Your task to perform on an android device: turn off airplane mode Image 0: 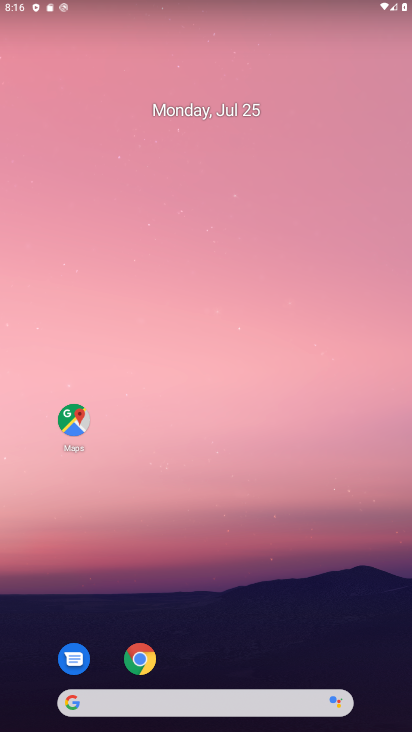
Step 0: drag from (345, 611) to (272, 141)
Your task to perform on an android device: turn off airplane mode Image 1: 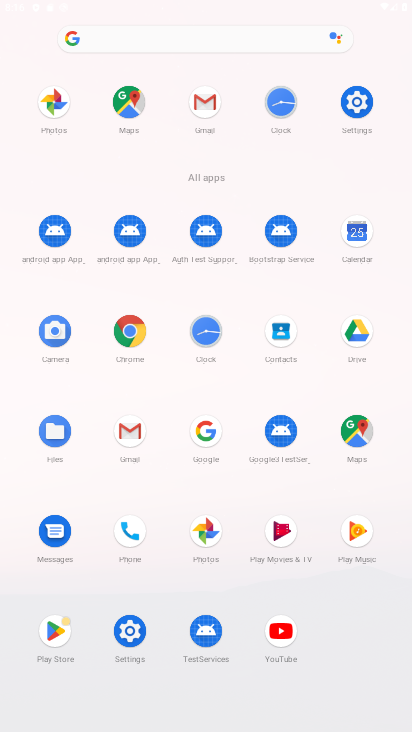
Step 1: drag from (122, 691) to (176, 230)
Your task to perform on an android device: turn off airplane mode Image 2: 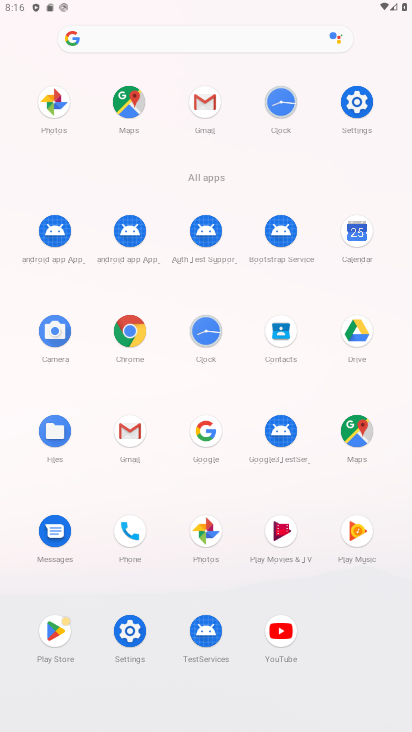
Step 2: click (356, 109)
Your task to perform on an android device: turn off airplane mode Image 3: 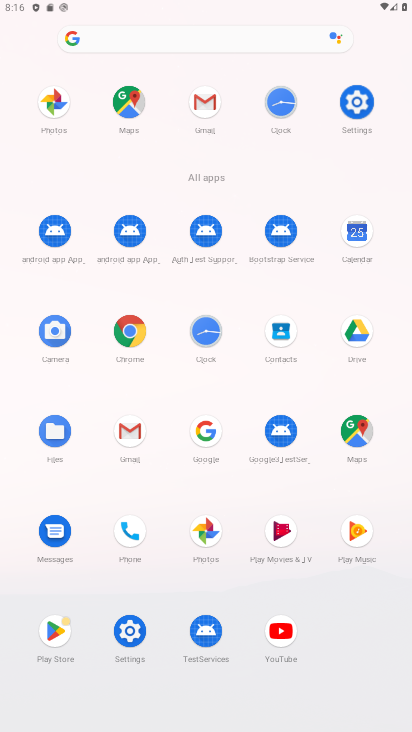
Step 3: click (355, 107)
Your task to perform on an android device: turn off airplane mode Image 4: 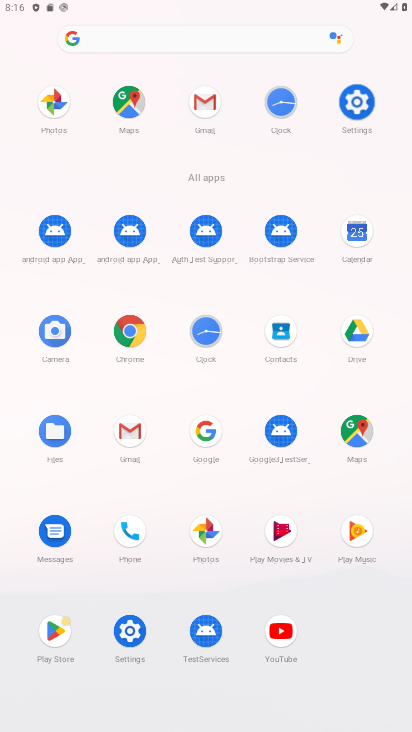
Step 4: click (355, 107)
Your task to perform on an android device: turn off airplane mode Image 5: 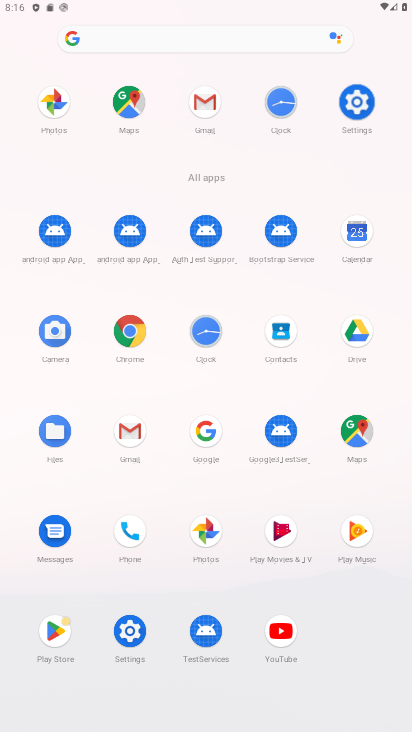
Step 5: click (356, 106)
Your task to perform on an android device: turn off airplane mode Image 6: 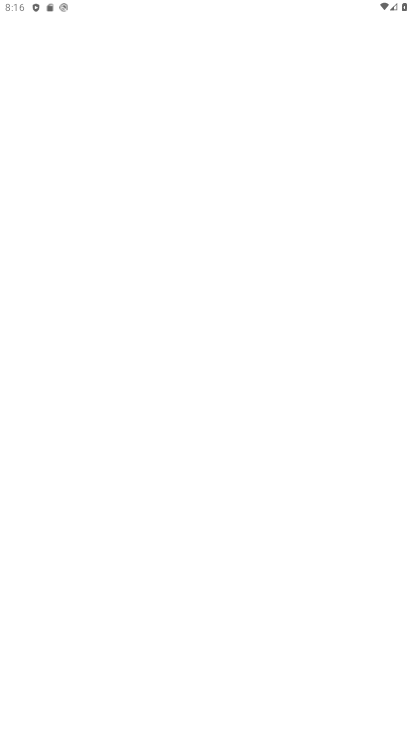
Step 6: click (358, 104)
Your task to perform on an android device: turn off airplane mode Image 7: 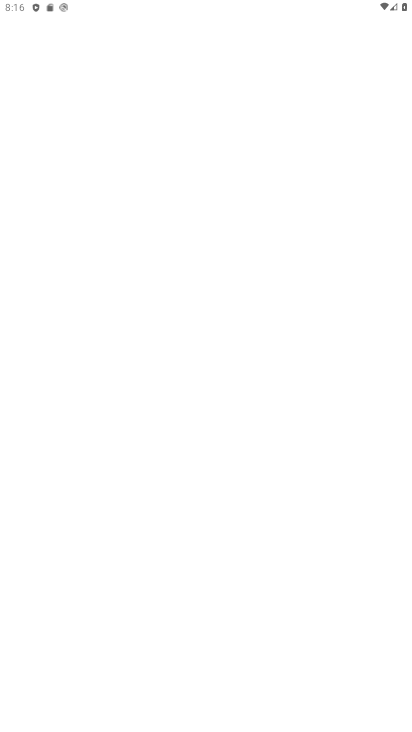
Step 7: click (358, 104)
Your task to perform on an android device: turn off airplane mode Image 8: 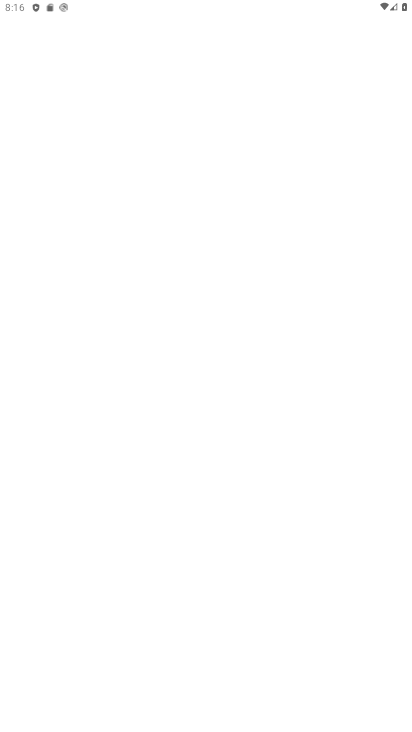
Step 8: click (358, 104)
Your task to perform on an android device: turn off airplane mode Image 9: 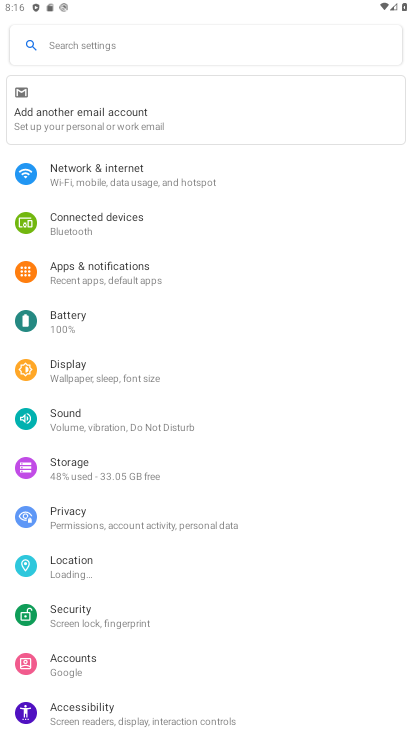
Step 9: click (91, 269)
Your task to perform on an android device: turn off airplane mode Image 10: 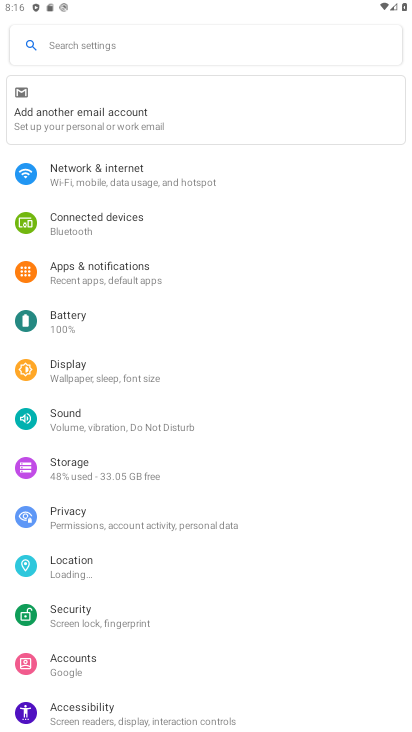
Step 10: click (87, 184)
Your task to perform on an android device: turn off airplane mode Image 11: 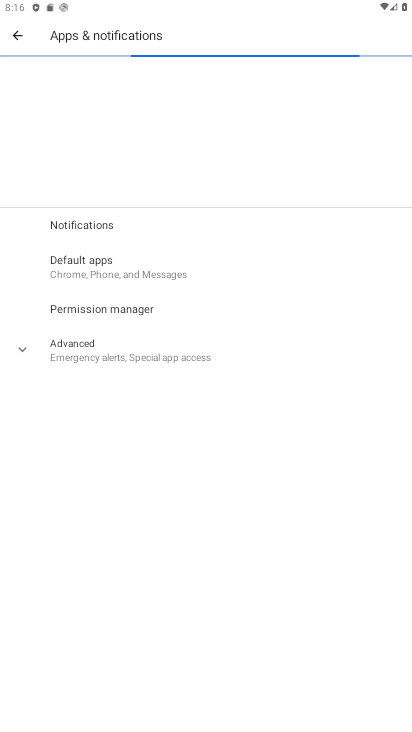
Step 11: click (104, 169)
Your task to perform on an android device: turn off airplane mode Image 12: 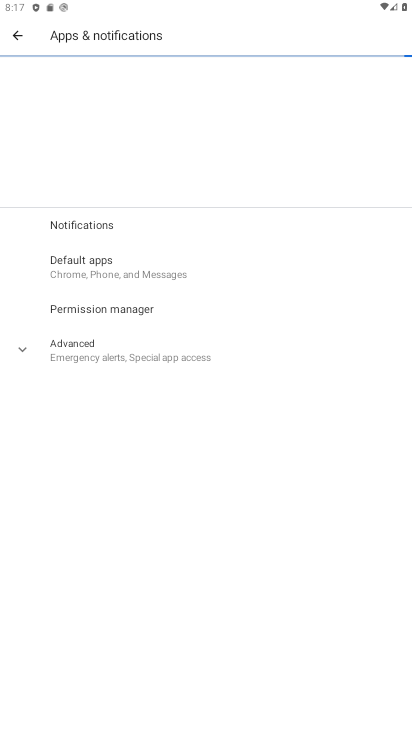
Step 12: click (27, 41)
Your task to perform on an android device: turn off airplane mode Image 13: 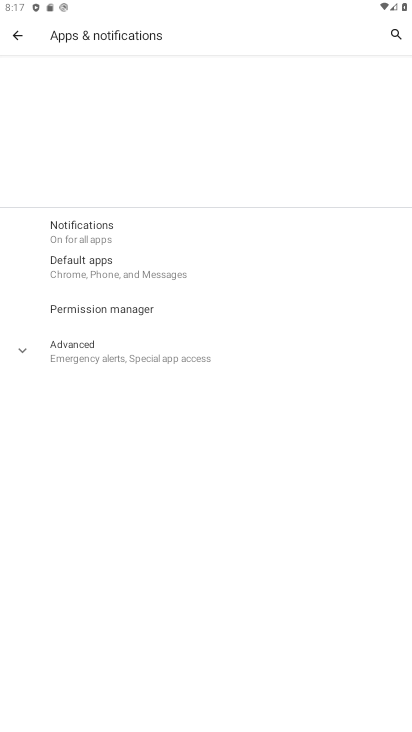
Step 13: click (21, 37)
Your task to perform on an android device: turn off airplane mode Image 14: 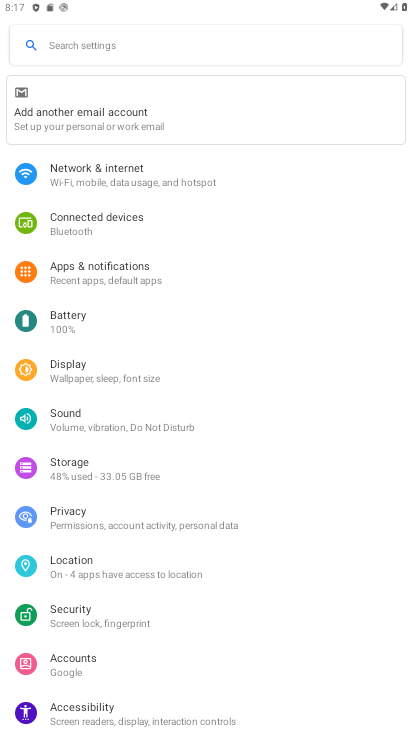
Step 14: click (81, 158)
Your task to perform on an android device: turn off airplane mode Image 15: 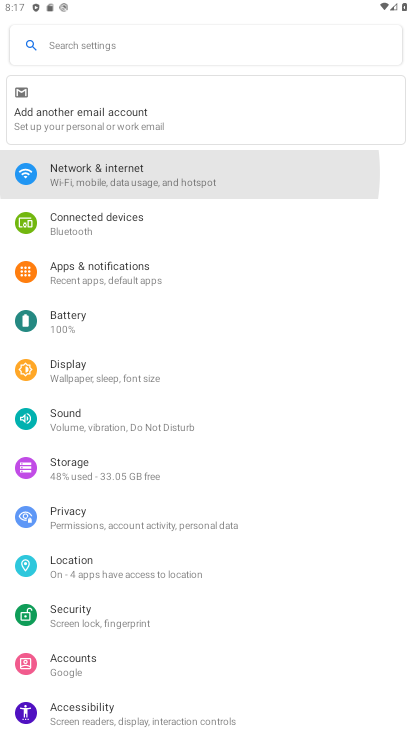
Step 15: click (82, 159)
Your task to perform on an android device: turn off airplane mode Image 16: 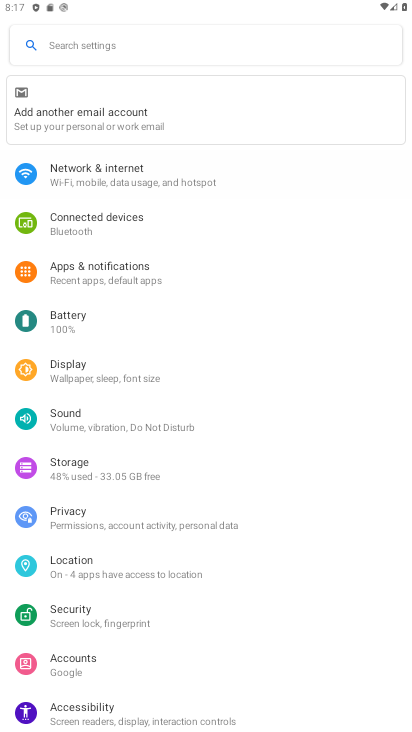
Step 16: click (93, 166)
Your task to perform on an android device: turn off airplane mode Image 17: 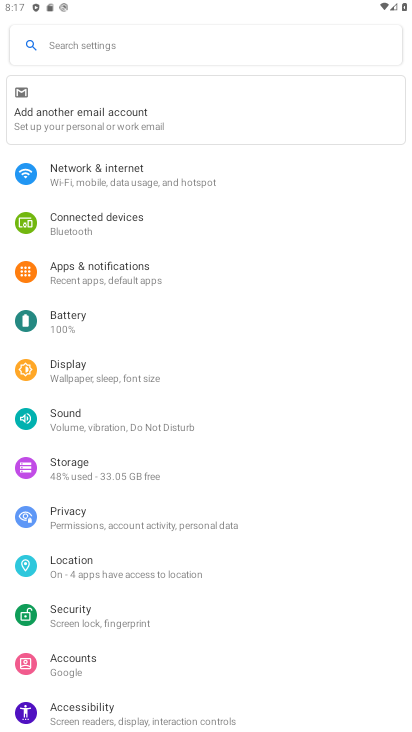
Step 17: click (93, 166)
Your task to perform on an android device: turn off airplane mode Image 18: 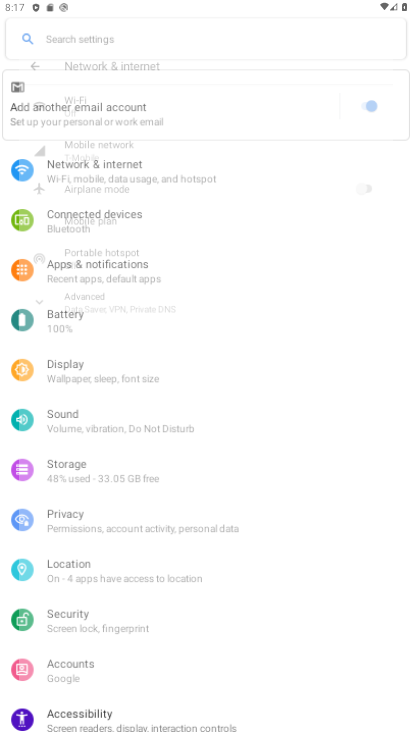
Step 18: click (90, 164)
Your task to perform on an android device: turn off airplane mode Image 19: 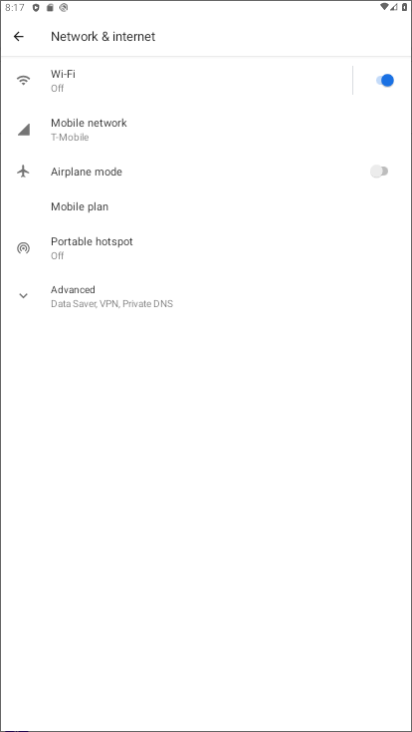
Step 19: click (92, 163)
Your task to perform on an android device: turn off airplane mode Image 20: 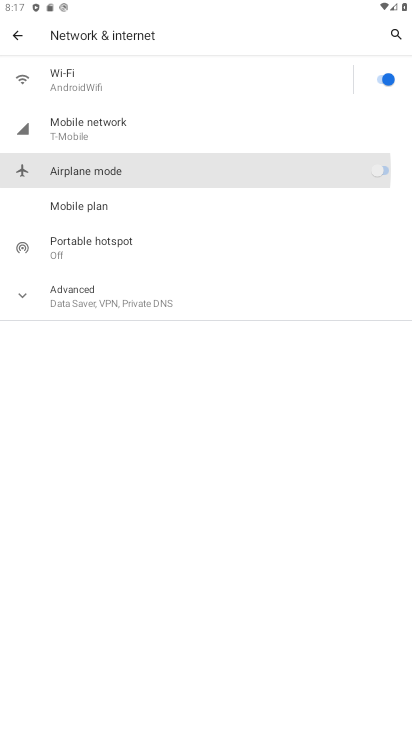
Step 20: click (94, 164)
Your task to perform on an android device: turn off airplane mode Image 21: 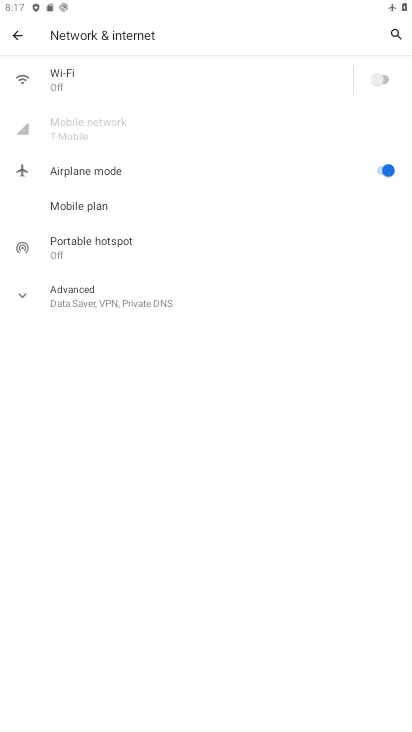
Step 21: click (378, 160)
Your task to perform on an android device: turn off airplane mode Image 22: 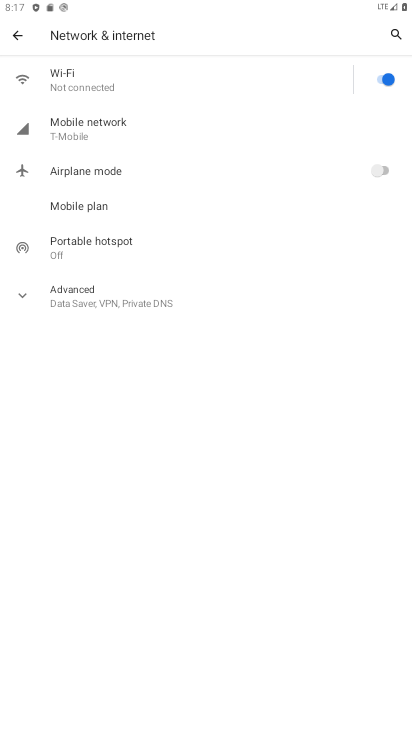
Step 22: task complete